Your task to perform on an android device: Empty the shopping cart on newegg.com. Image 0: 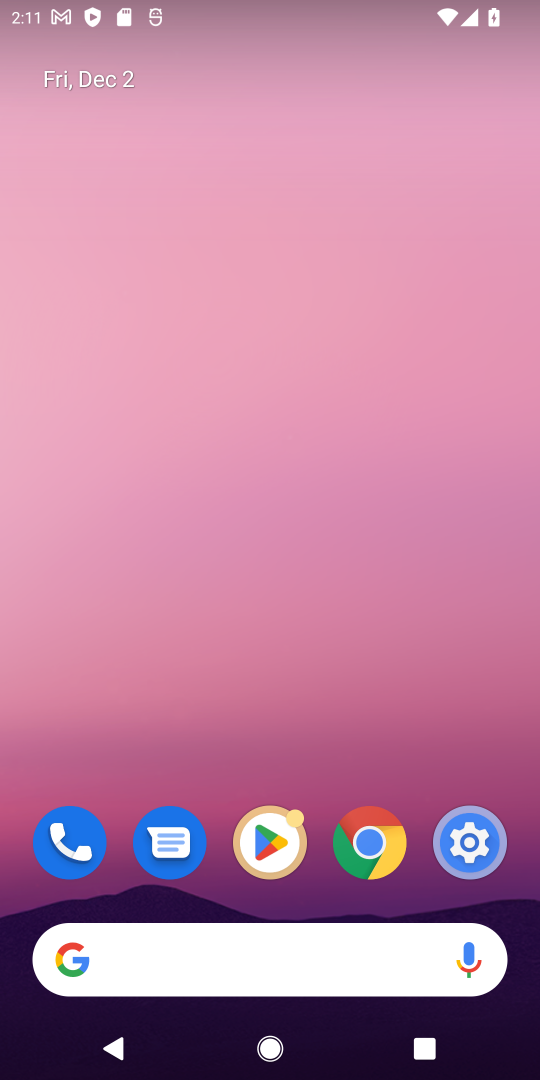
Step 0: click (367, 835)
Your task to perform on an android device: Empty the shopping cart on newegg.com. Image 1: 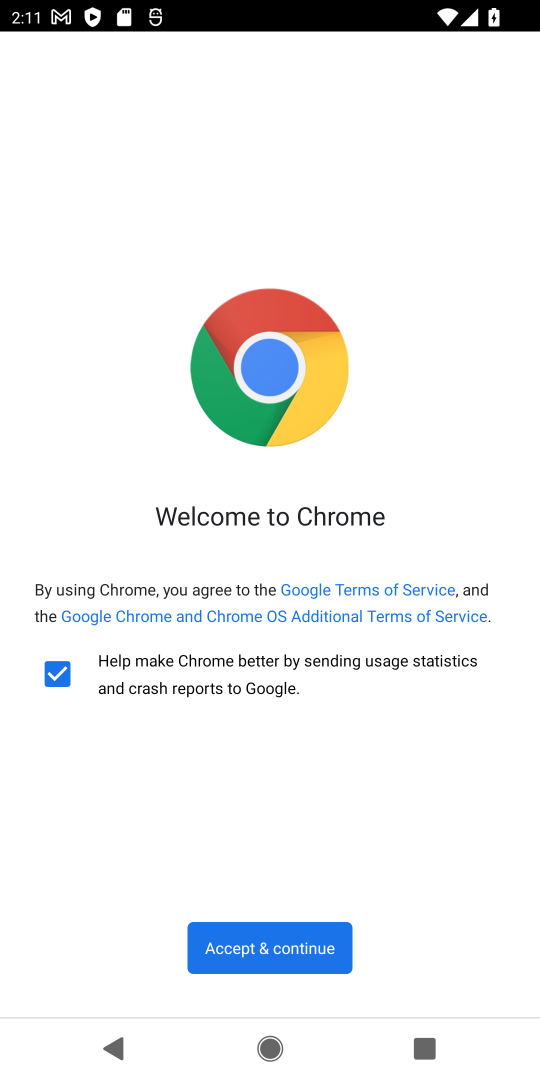
Step 1: click (269, 932)
Your task to perform on an android device: Empty the shopping cart on newegg.com. Image 2: 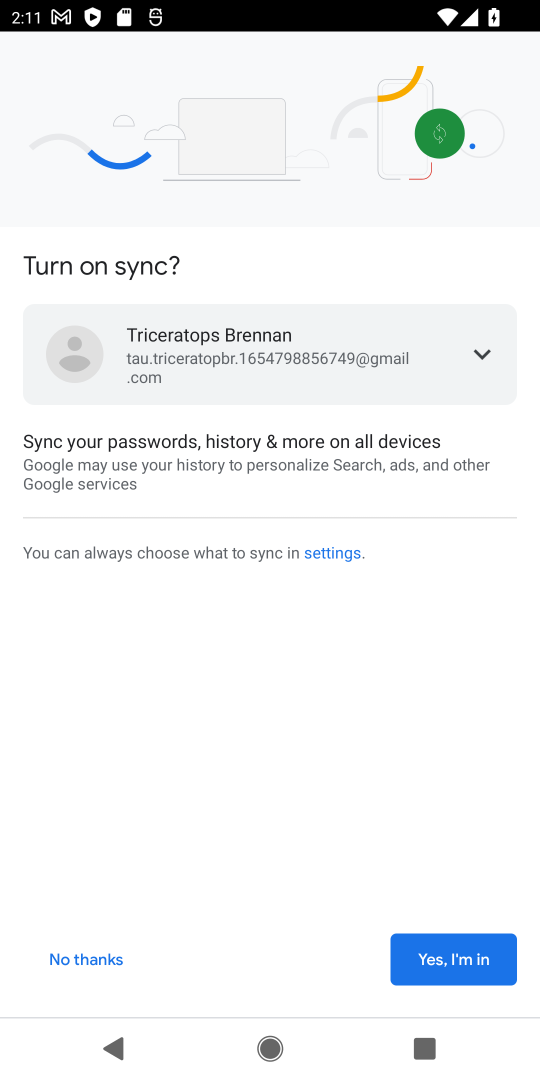
Step 2: click (434, 960)
Your task to perform on an android device: Empty the shopping cart on newegg.com. Image 3: 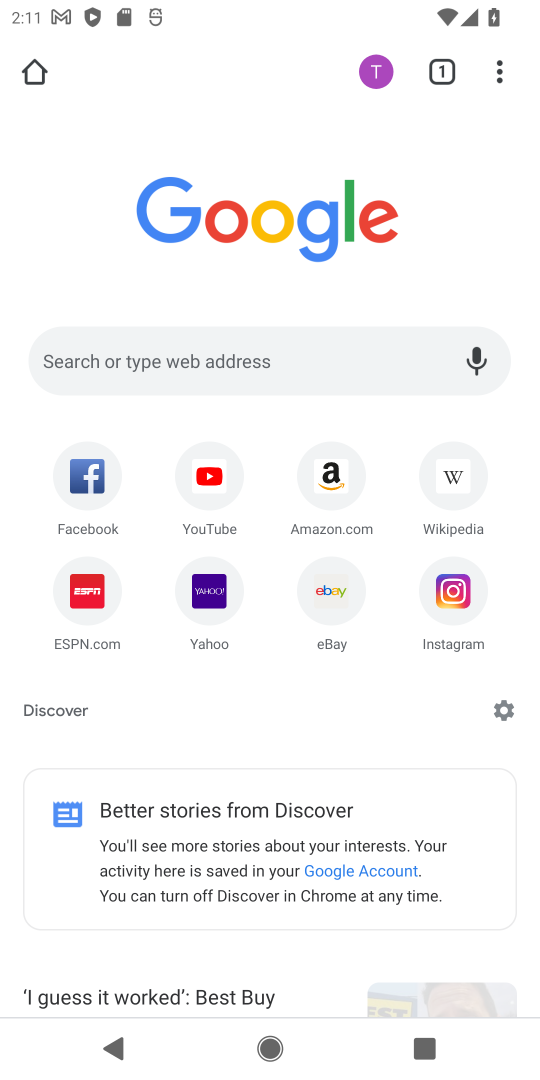
Step 3: click (264, 345)
Your task to perform on an android device: Empty the shopping cart on newegg.com. Image 4: 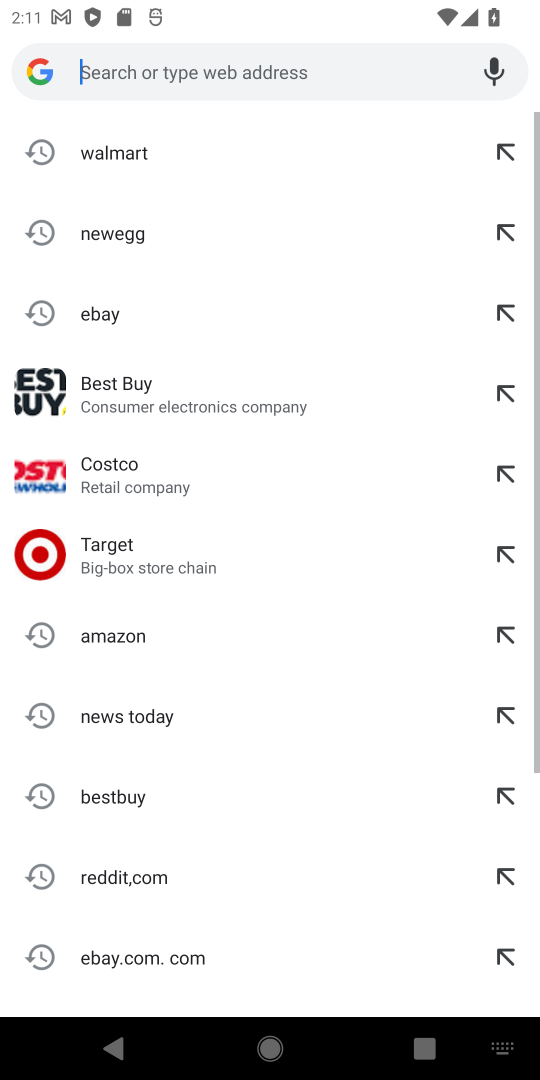
Step 4: click (155, 238)
Your task to perform on an android device: Empty the shopping cart on newegg.com. Image 5: 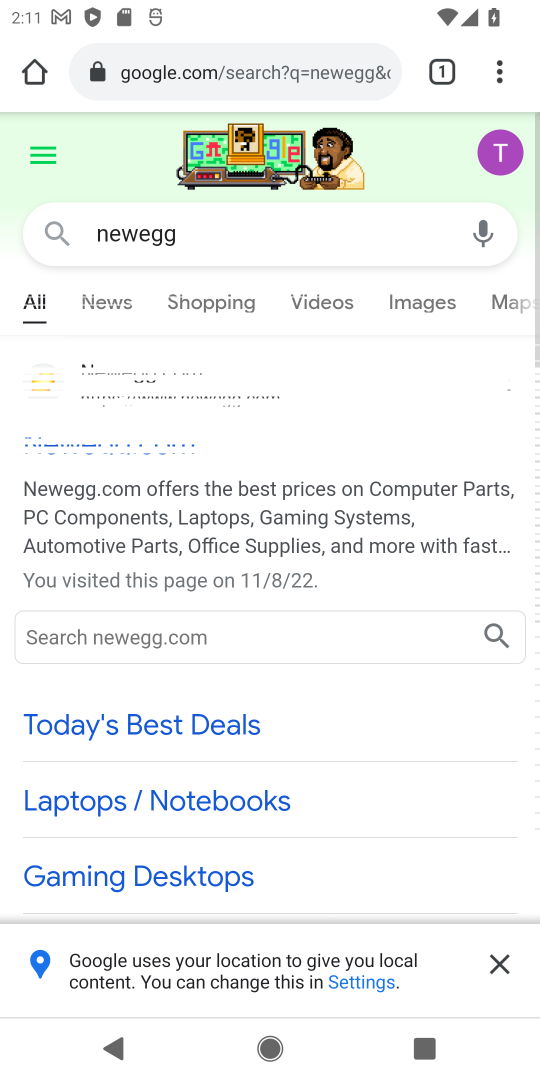
Step 5: click (163, 450)
Your task to perform on an android device: Empty the shopping cart on newegg.com. Image 6: 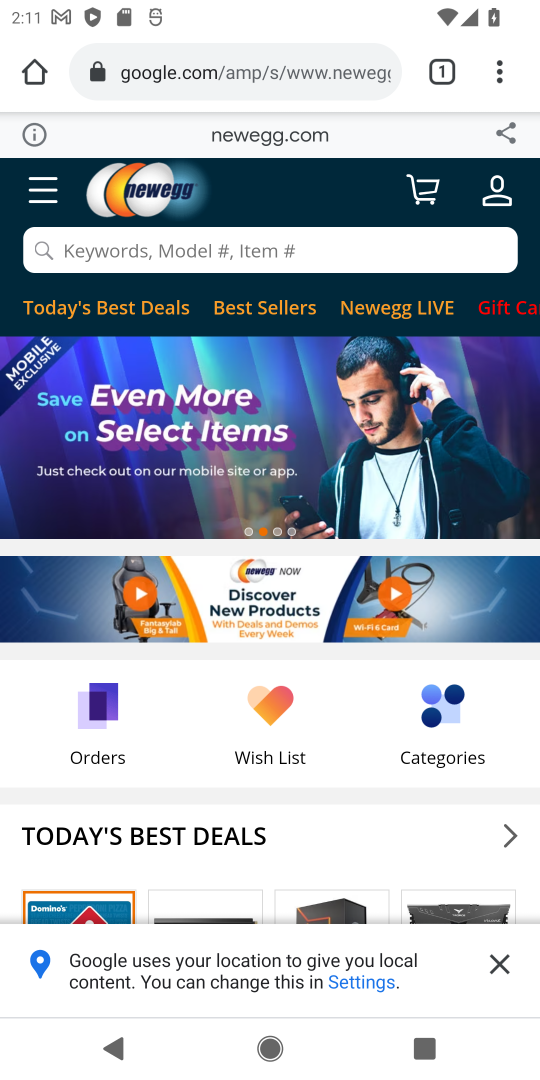
Step 6: click (481, 187)
Your task to perform on an android device: Empty the shopping cart on newegg.com. Image 7: 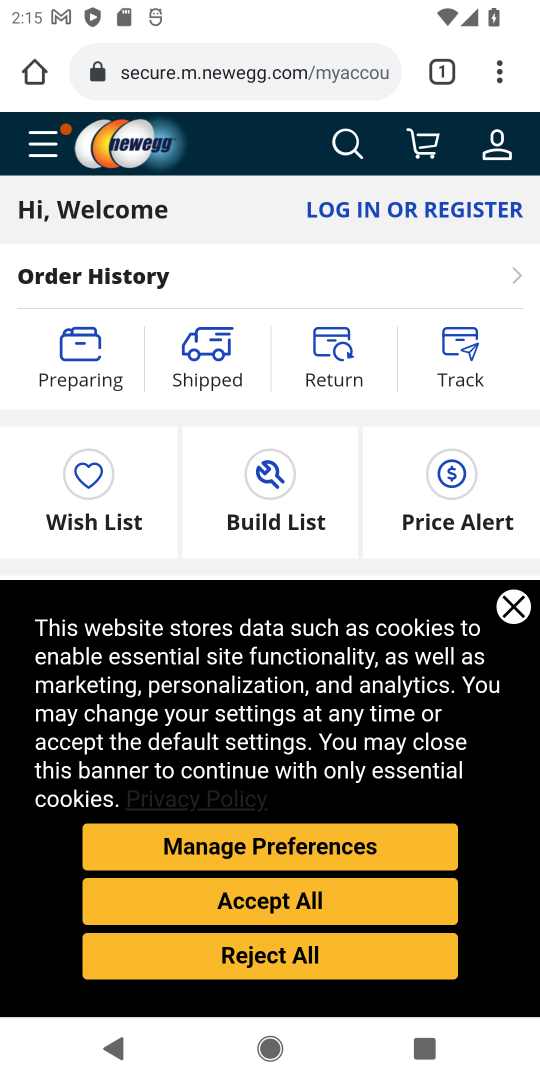
Step 7: task complete